Your task to perform on an android device: turn off picture-in-picture Image 0: 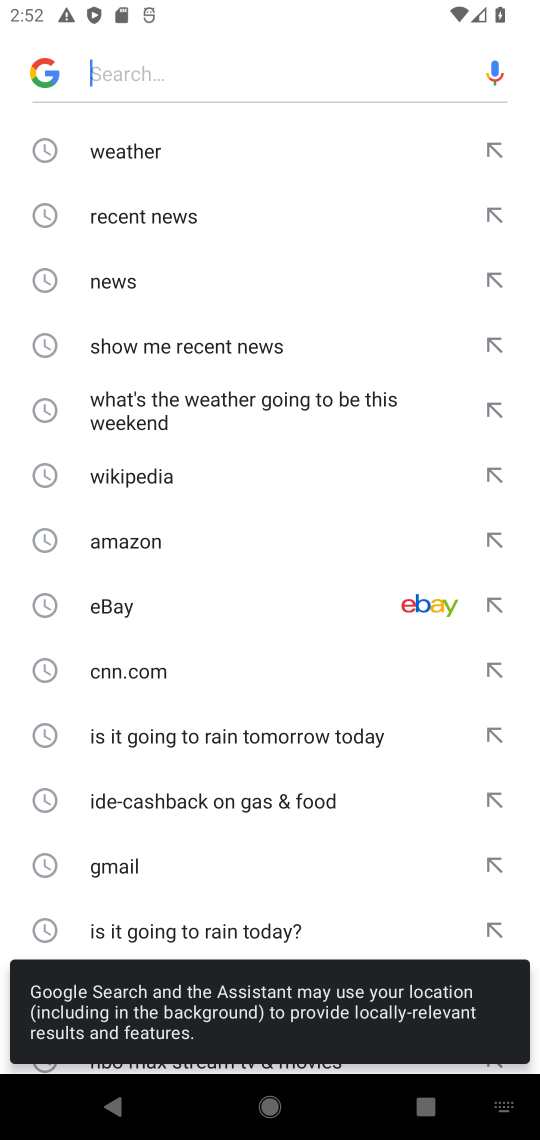
Step 0: press home button
Your task to perform on an android device: turn off picture-in-picture Image 1: 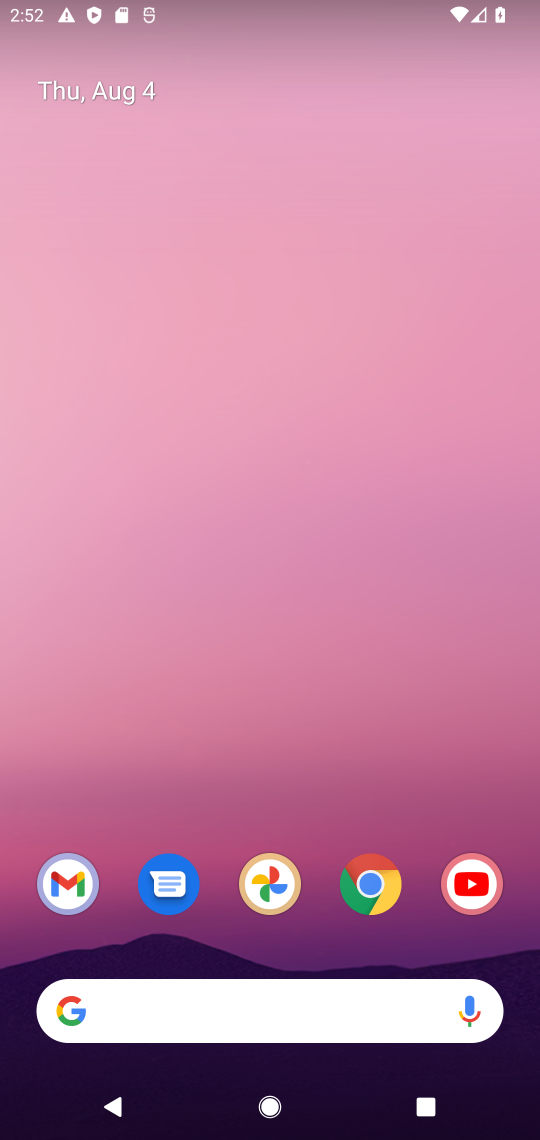
Step 1: drag from (317, 774) to (330, 73)
Your task to perform on an android device: turn off picture-in-picture Image 2: 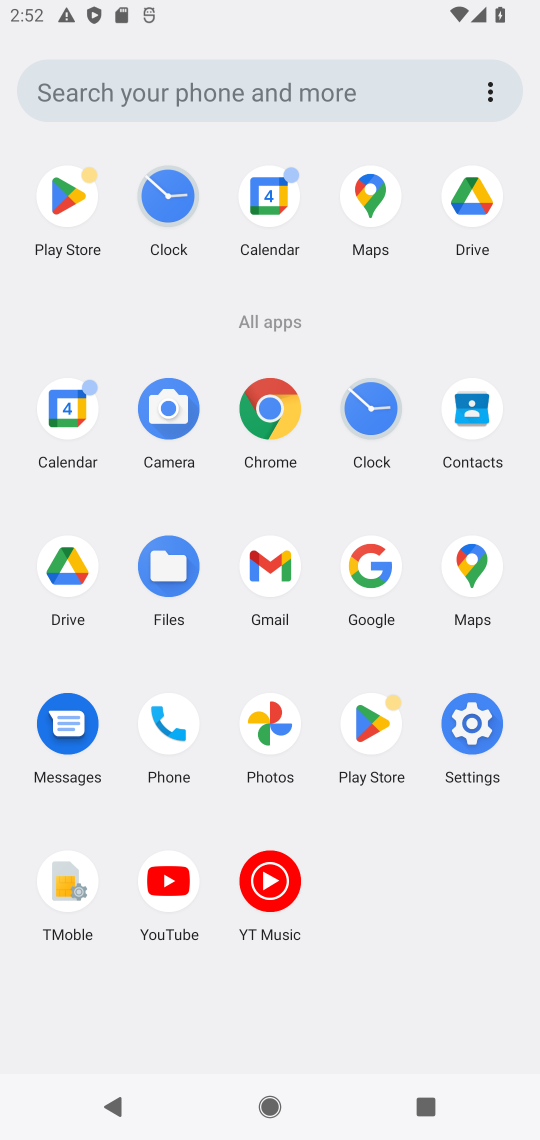
Step 2: click (473, 730)
Your task to perform on an android device: turn off picture-in-picture Image 3: 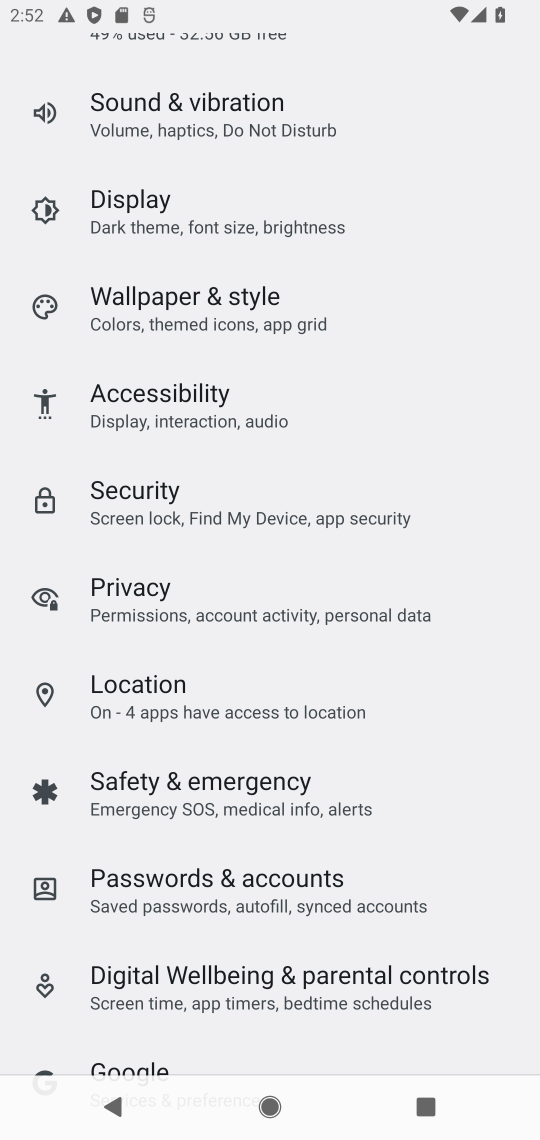
Step 3: drag from (486, 487) to (486, 663)
Your task to perform on an android device: turn off picture-in-picture Image 4: 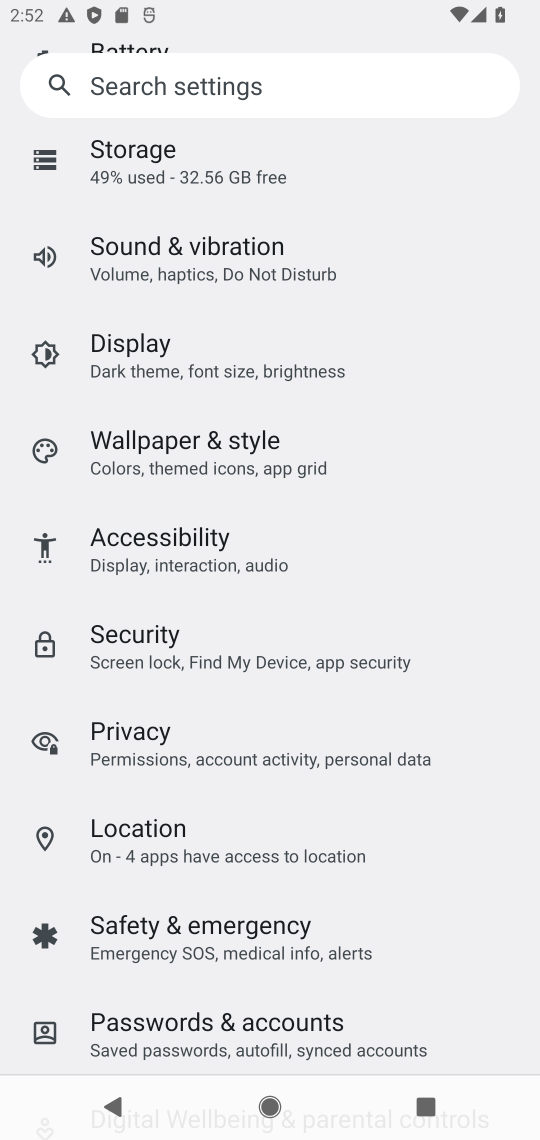
Step 4: drag from (468, 397) to (470, 628)
Your task to perform on an android device: turn off picture-in-picture Image 5: 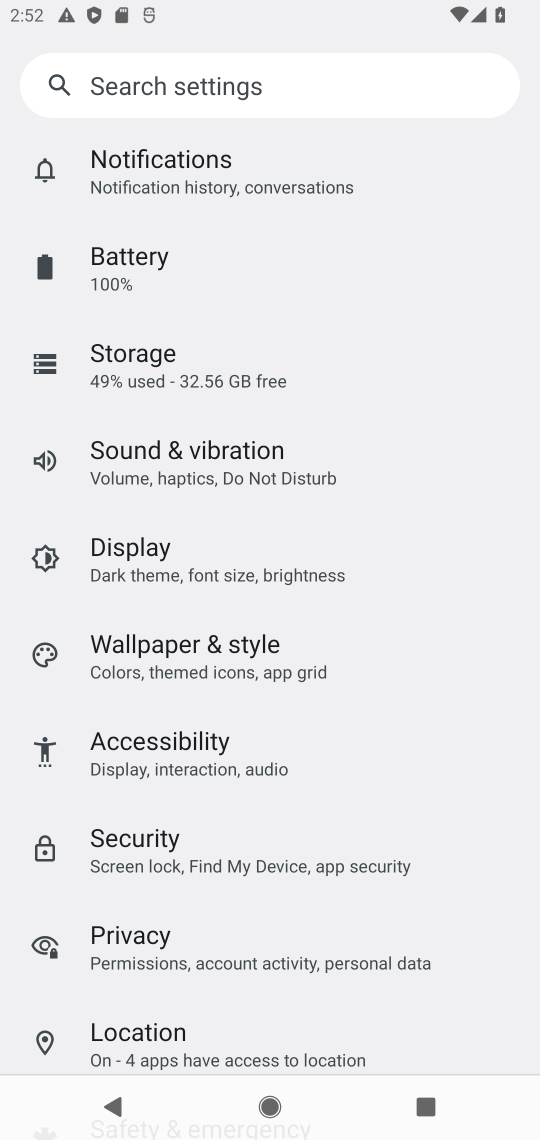
Step 5: drag from (451, 355) to (455, 551)
Your task to perform on an android device: turn off picture-in-picture Image 6: 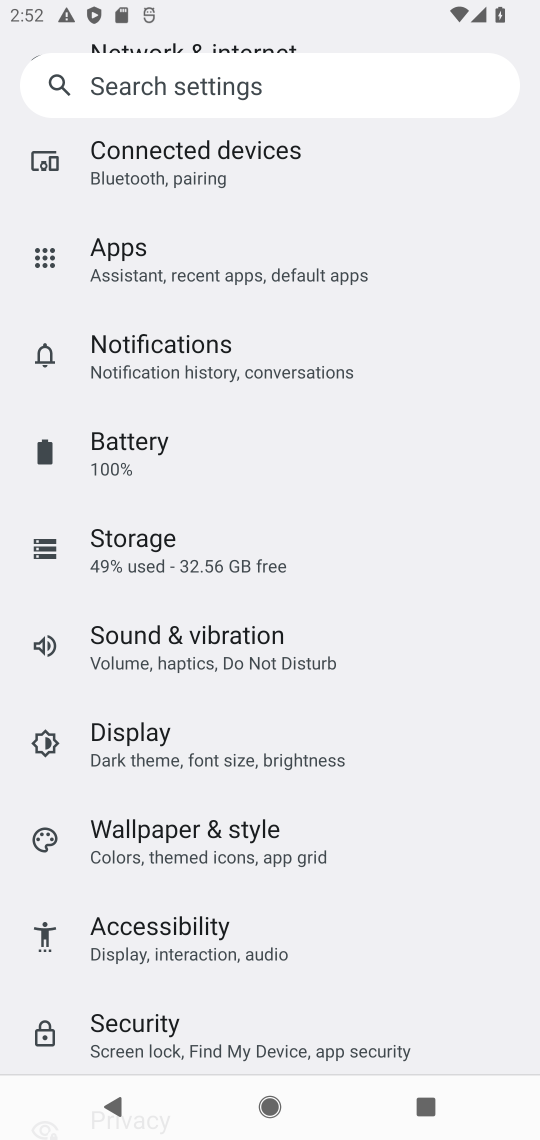
Step 6: drag from (460, 353) to (468, 528)
Your task to perform on an android device: turn off picture-in-picture Image 7: 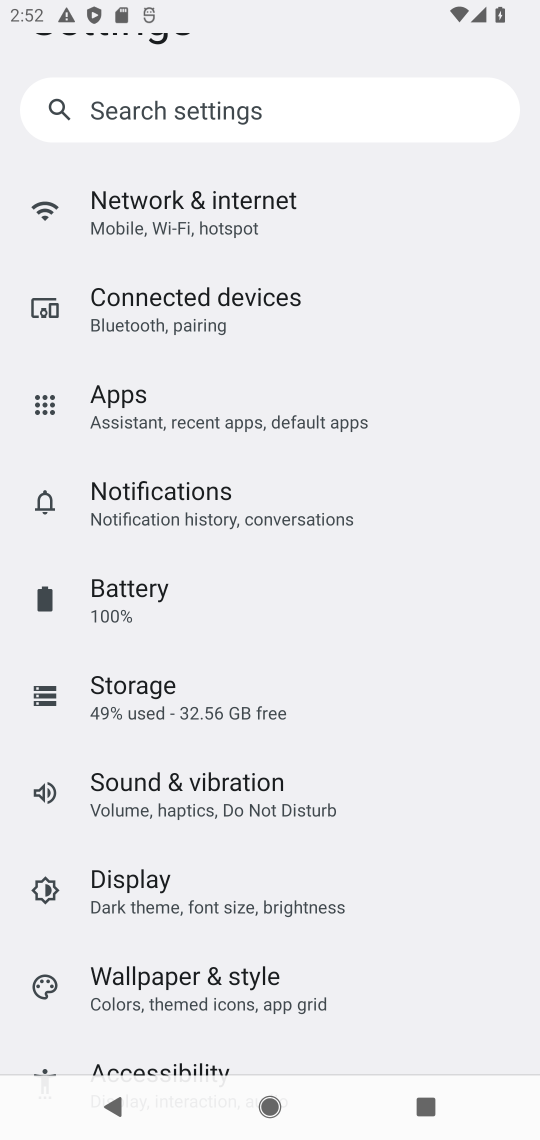
Step 7: drag from (462, 315) to (468, 514)
Your task to perform on an android device: turn off picture-in-picture Image 8: 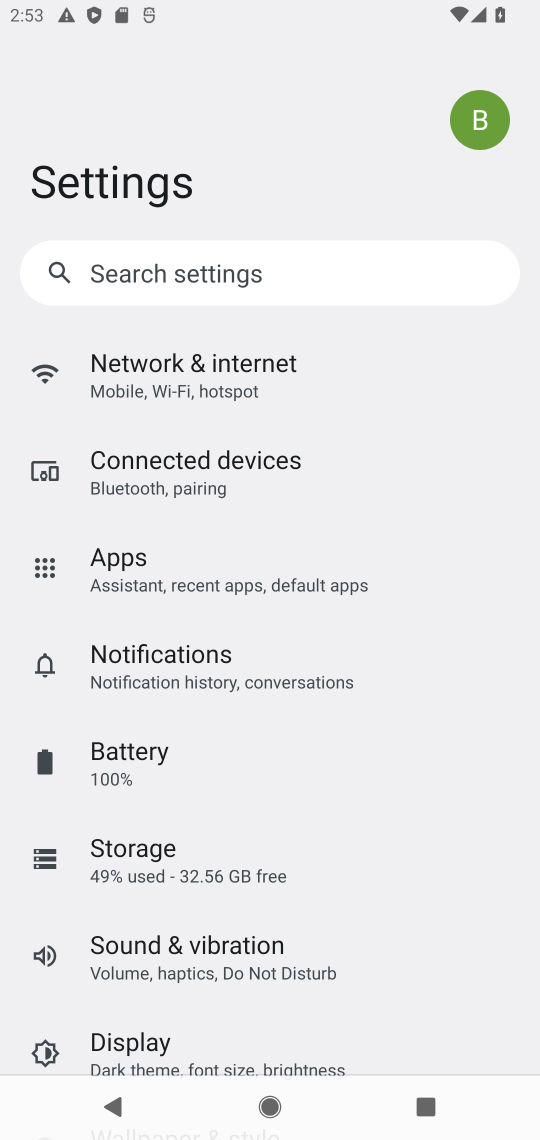
Step 8: click (379, 581)
Your task to perform on an android device: turn off picture-in-picture Image 9: 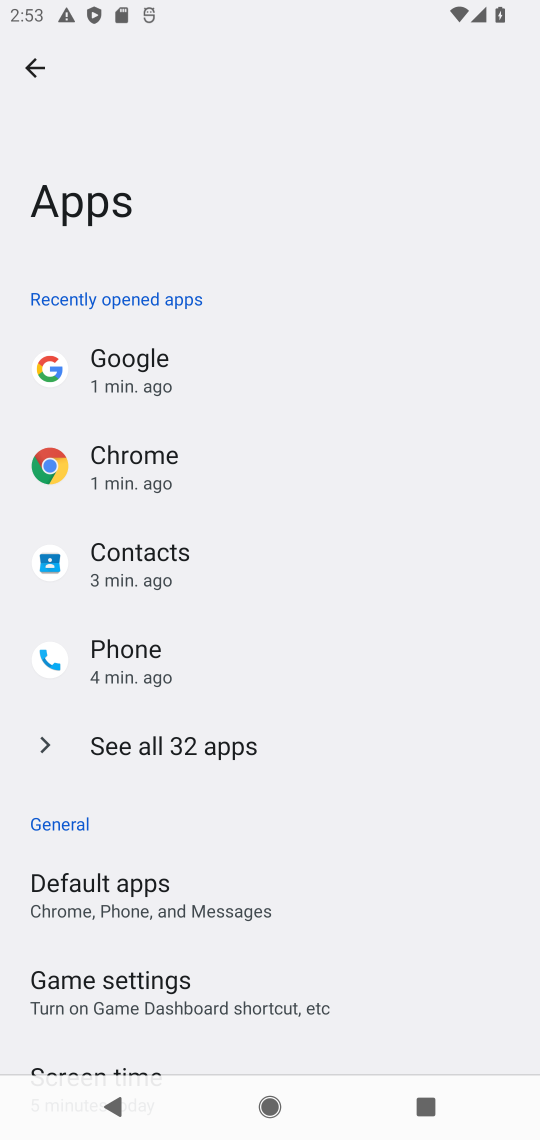
Step 9: drag from (411, 728) to (420, 504)
Your task to perform on an android device: turn off picture-in-picture Image 10: 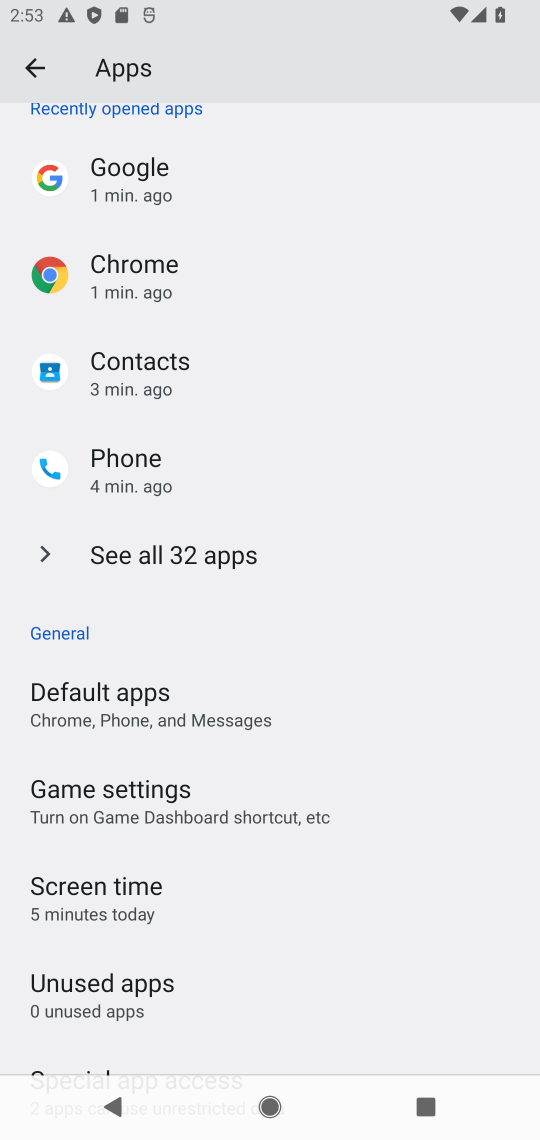
Step 10: drag from (397, 880) to (433, 581)
Your task to perform on an android device: turn off picture-in-picture Image 11: 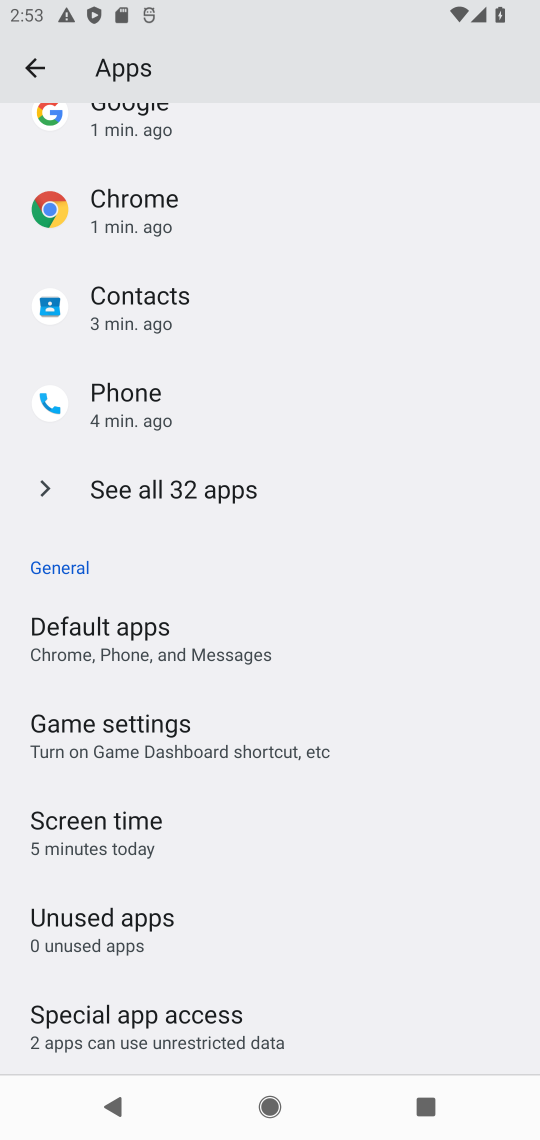
Step 11: click (263, 1026)
Your task to perform on an android device: turn off picture-in-picture Image 12: 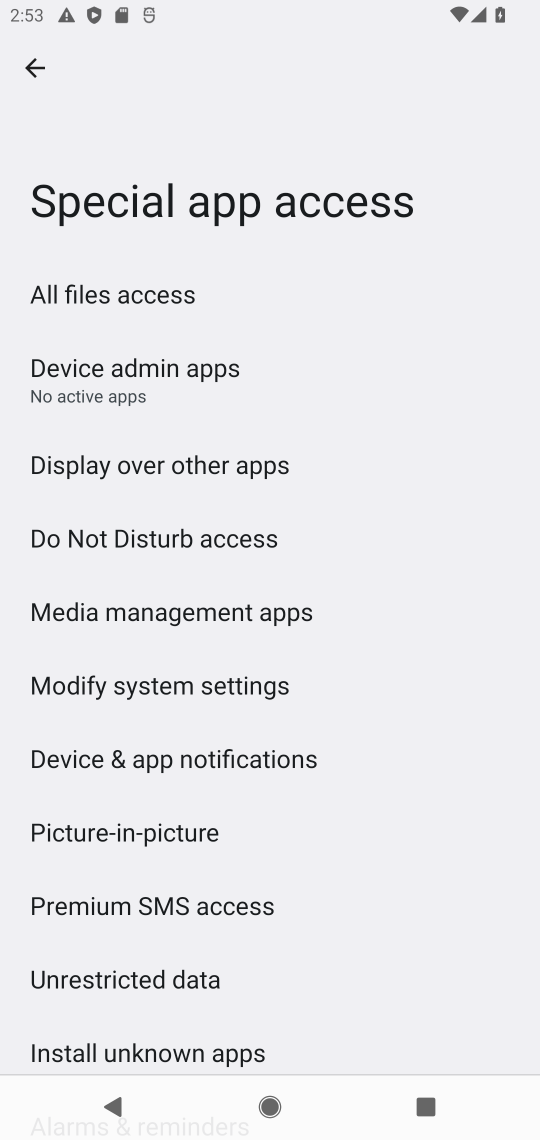
Step 12: drag from (395, 883) to (408, 567)
Your task to perform on an android device: turn off picture-in-picture Image 13: 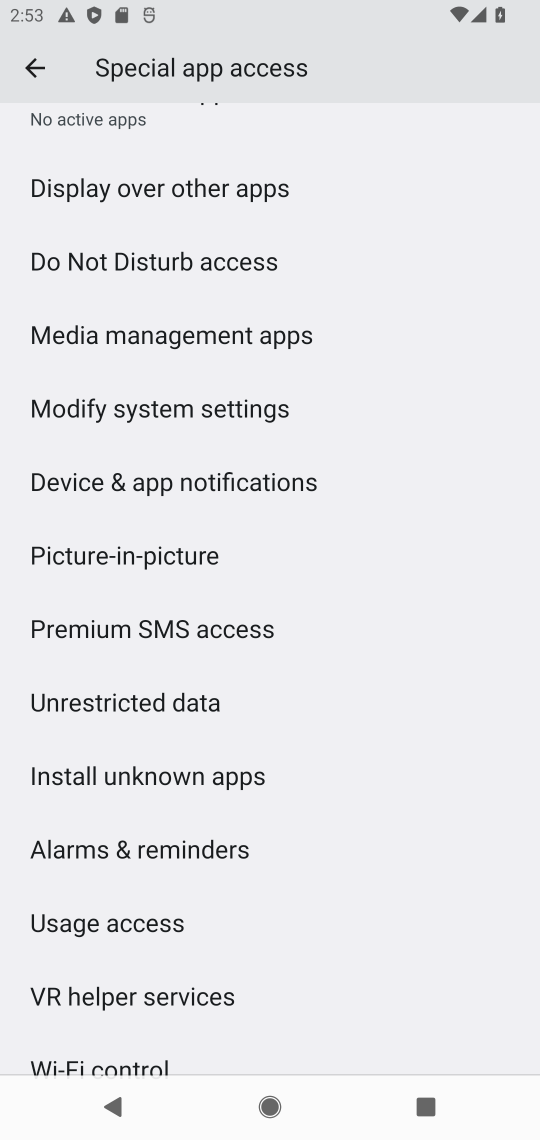
Step 13: click (367, 556)
Your task to perform on an android device: turn off picture-in-picture Image 14: 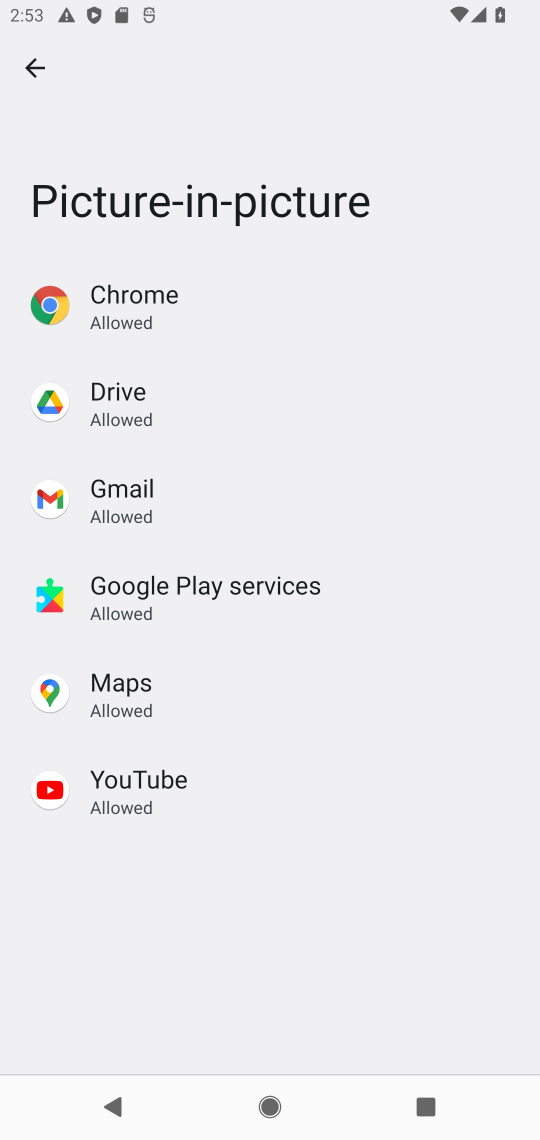
Step 14: click (165, 800)
Your task to perform on an android device: turn off picture-in-picture Image 15: 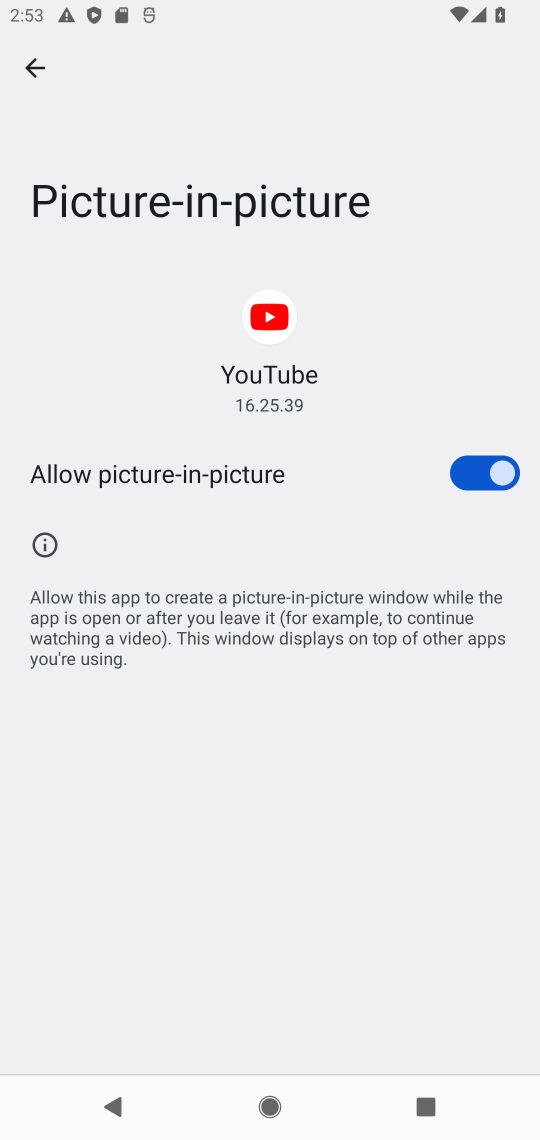
Step 15: click (486, 473)
Your task to perform on an android device: turn off picture-in-picture Image 16: 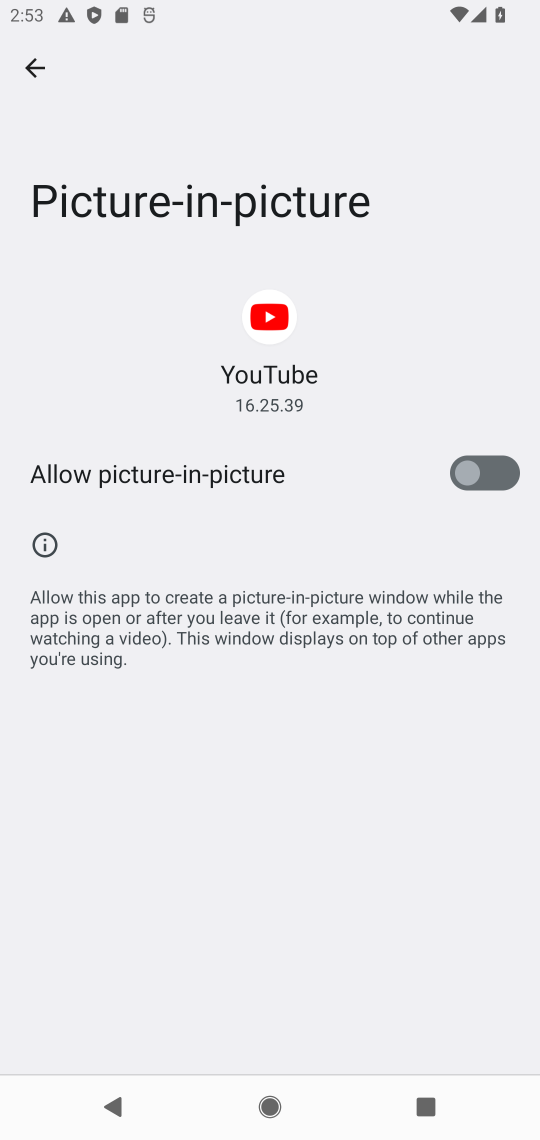
Step 16: task complete